Your task to perform on an android device: star an email in the gmail app Image 0: 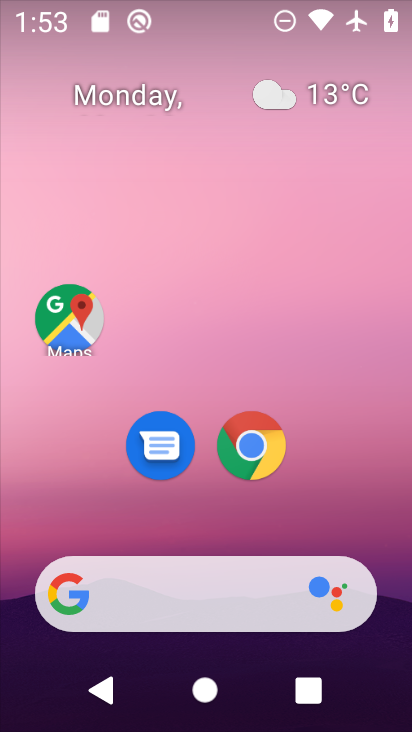
Step 0: drag from (390, 649) to (352, 96)
Your task to perform on an android device: star an email in the gmail app Image 1: 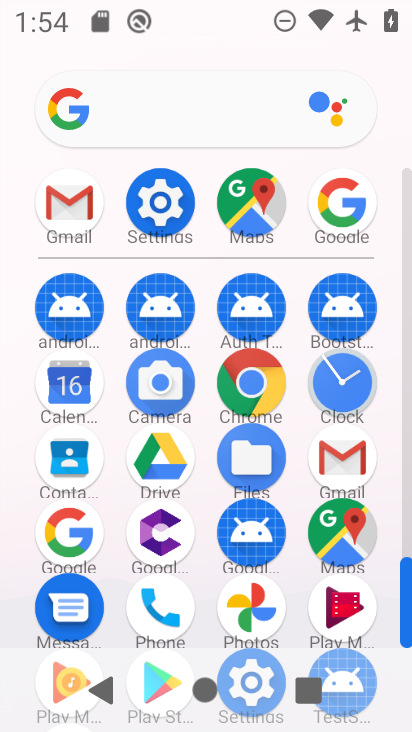
Step 1: click (350, 476)
Your task to perform on an android device: star an email in the gmail app Image 2: 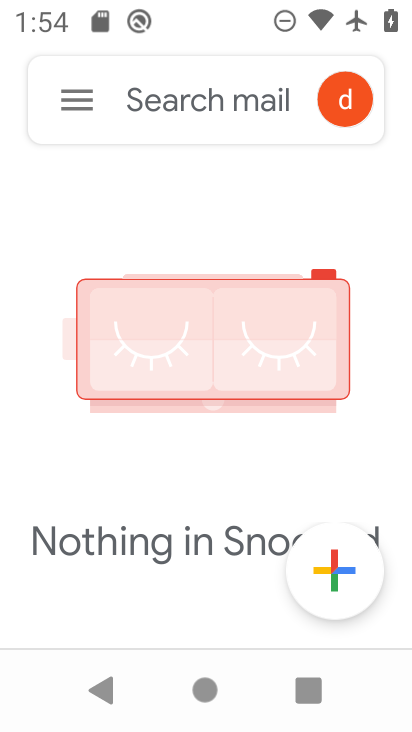
Step 2: click (69, 84)
Your task to perform on an android device: star an email in the gmail app Image 3: 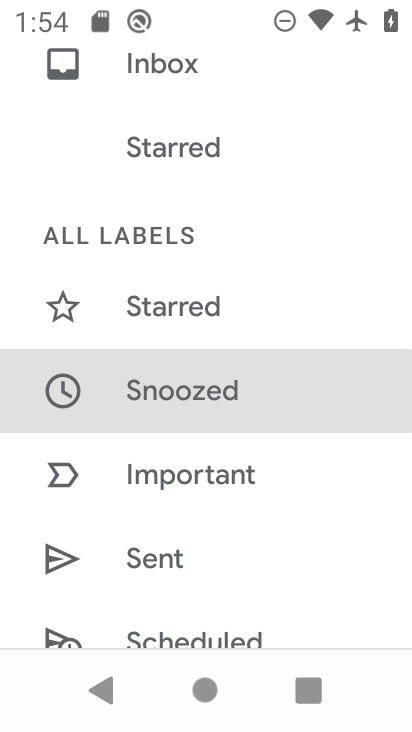
Step 3: click (184, 310)
Your task to perform on an android device: star an email in the gmail app Image 4: 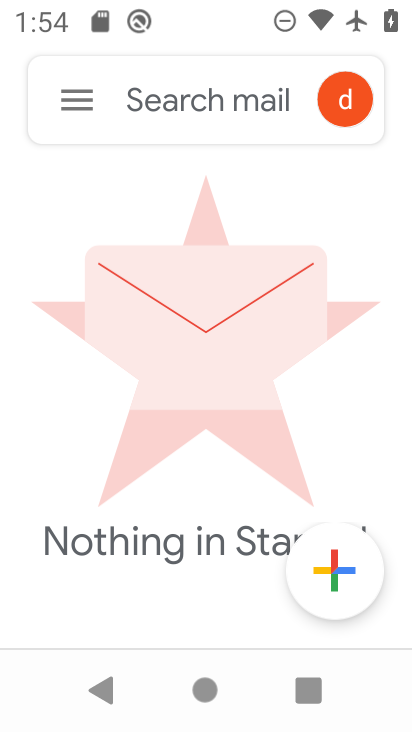
Step 4: task complete